Your task to perform on an android device: turn on data saver in the chrome app Image 0: 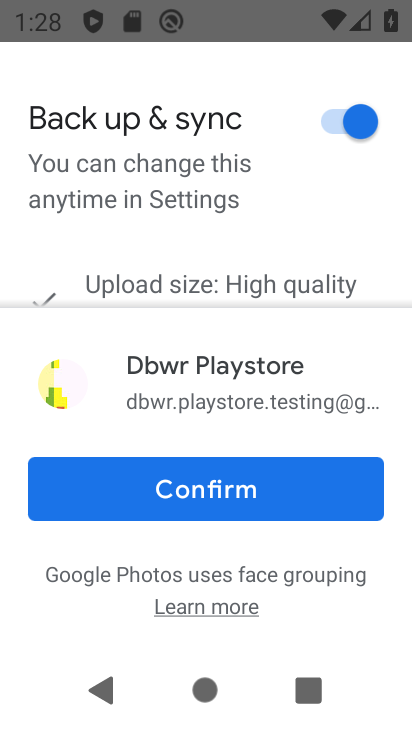
Step 0: press home button
Your task to perform on an android device: turn on data saver in the chrome app Image 1: 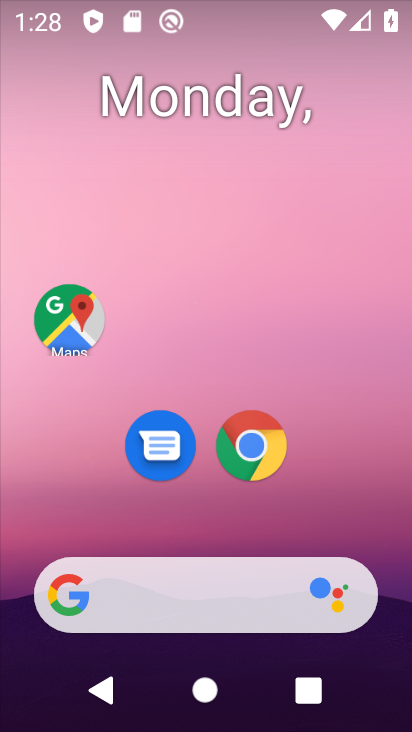
Step 1: click (257, 445)
Your task to perform on an android device: turn on data saver in the chrome app Image 2: 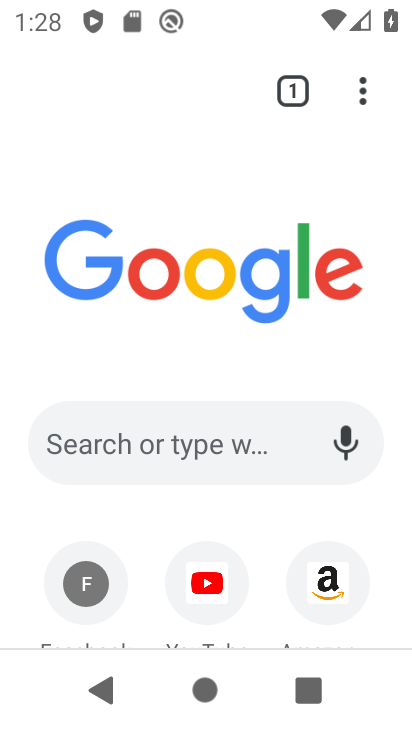
Step 2: click (351, 102)
Your task to perform on an android device: turn on data saver in the chrome app Image 3: 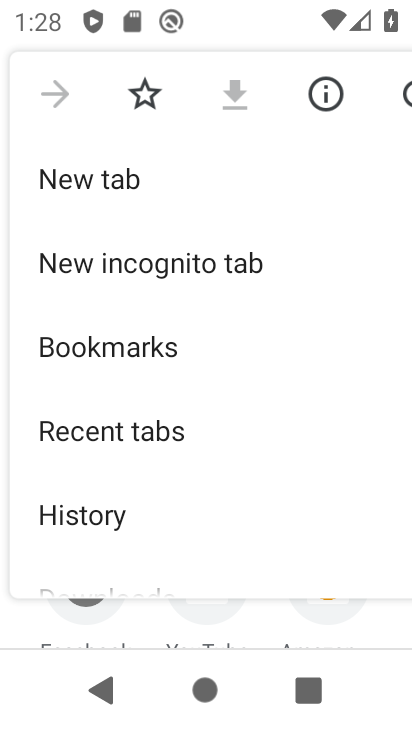
Step 3: drag from (194, 543) to (243, 116)
Your task to perform on an android device: turn on data saver in the chrome app Image 4: 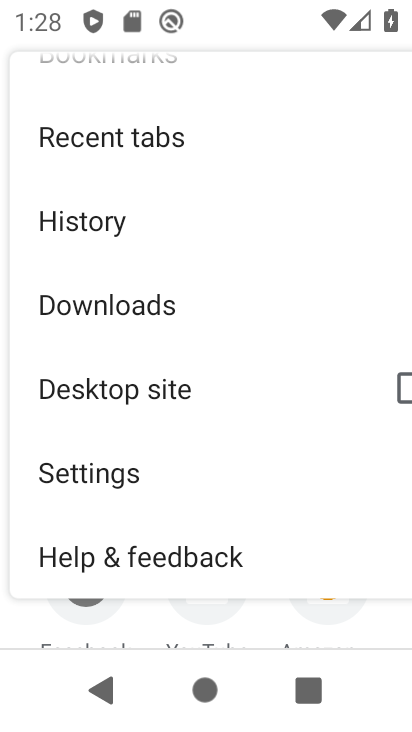
Step 4: click (127, 493)
Your task to perform on an android device: turn on data saver in the chrome app Image 5: 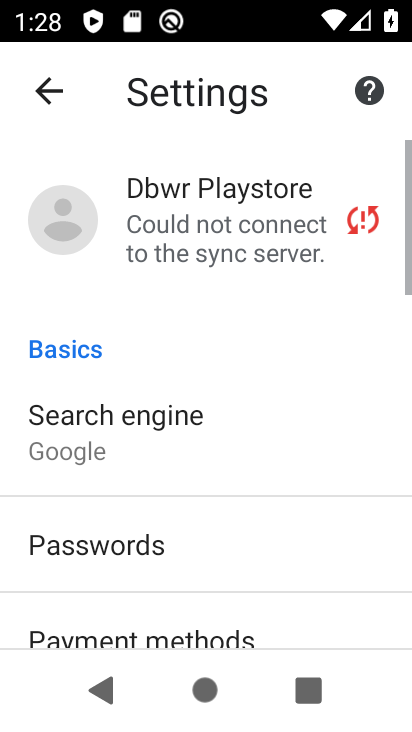
Step 5: drag from (209, 585) to (261, 123)
Your task to perform on an android device: turn on data saver in the chrome app Image 6: 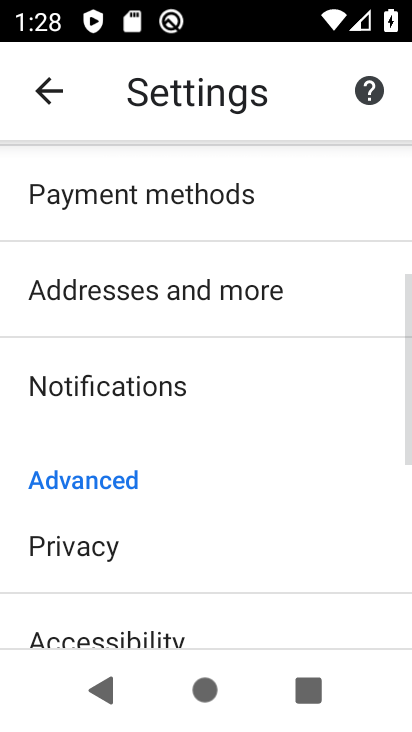
Step 6: drag from (232, 521) to (238, 248)
Your task to perform on an android device: turn on data saver in the chrome app Image 7: 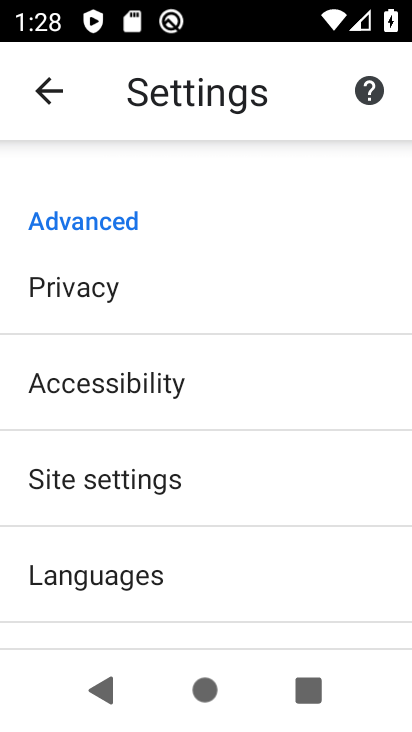
Step 7: click (105, 481)
Your task to perform on an android device: turn on data saver in the chrome app Image 8: 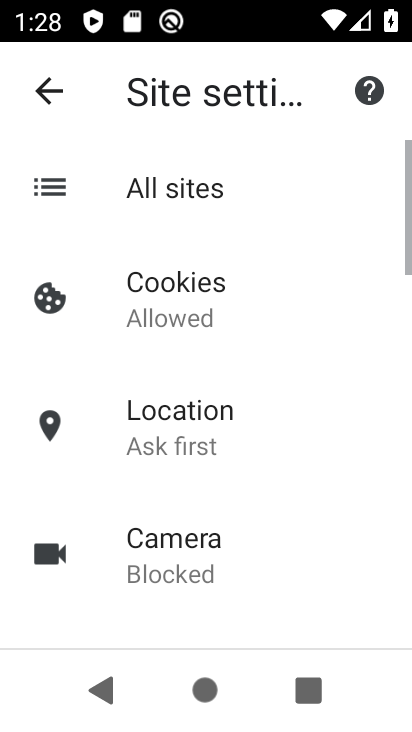
Step 8: press back button
Your task to perform on an android device: turn on data saver in the chrome app Image 9: 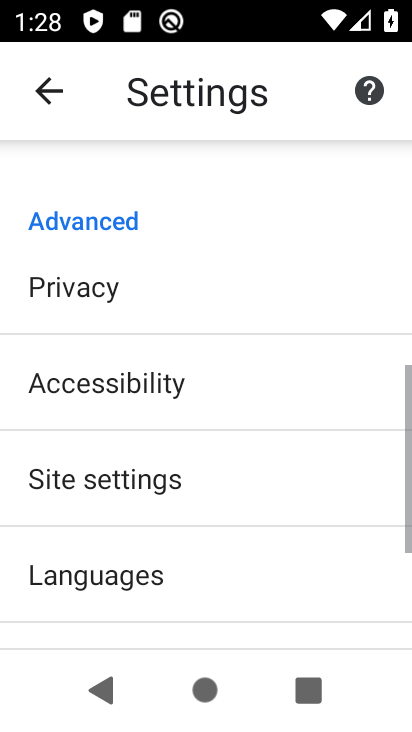
Step 9: drag from (180, 594) to (207, 252)
Your task to perform on an android device: turn on data saver in the chrome app Image 10: 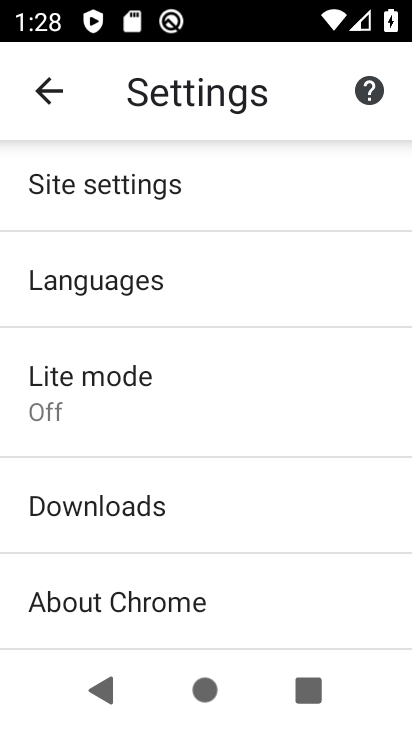
Step 10: click (112, 393)
Your task to perform on an android device: turn on data saver in the chrome app Image 11: 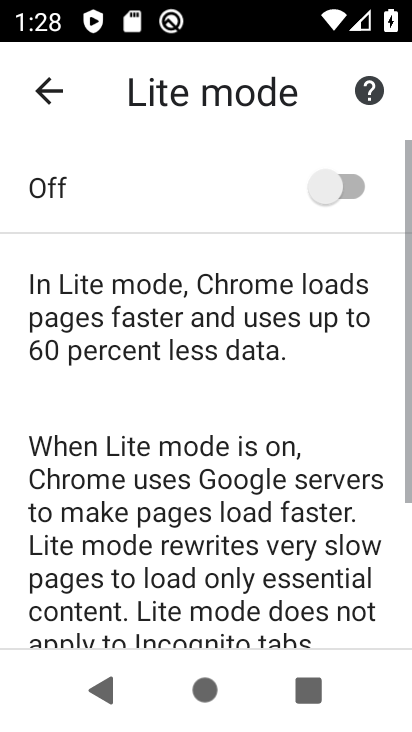
Step 11: click (333, 195)
Your task to perform on an android device: turn on data saver in the chrome app Image 12: 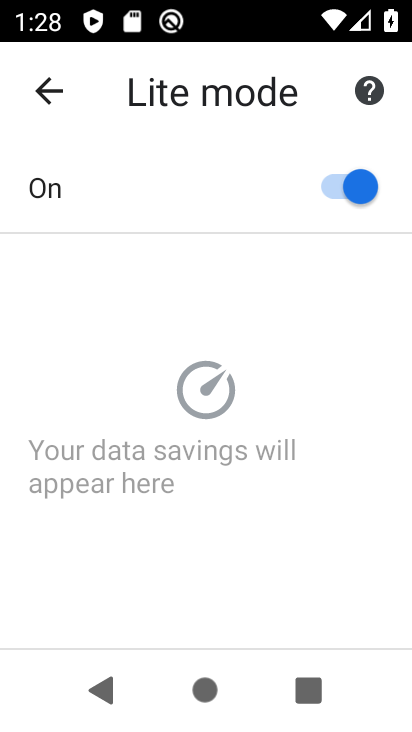
Step 12: task complete